Your task to perform on an android device: Open privacy settings Image 0: 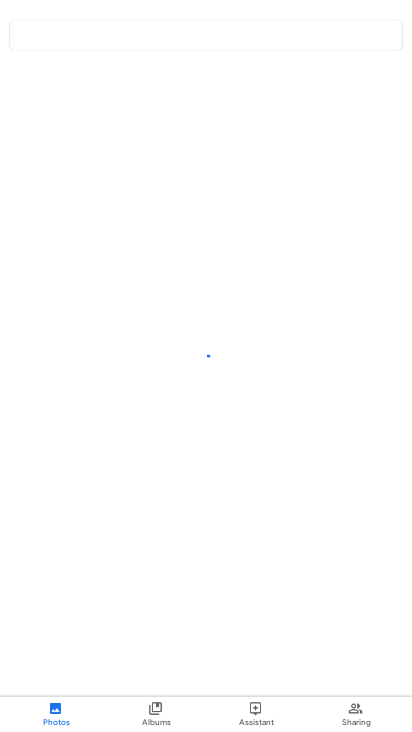
Step 0: press home button
Your task to perform on an android device: Open privacy settings Image 1: 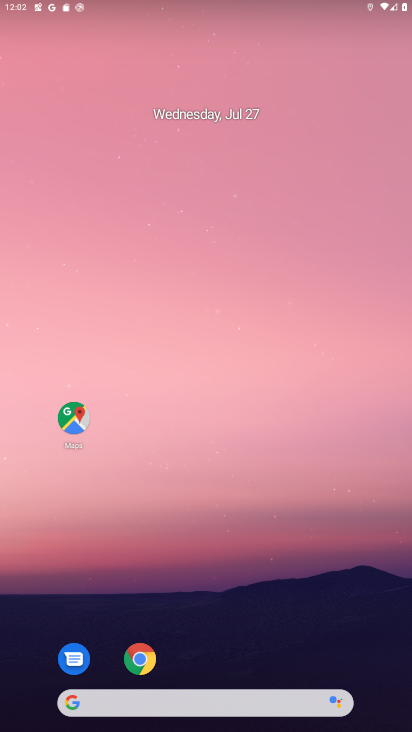
Step 1: drag from (230, 694) to (345, 0)
Your task to perform on an android device: Open privacy settings Image 2: 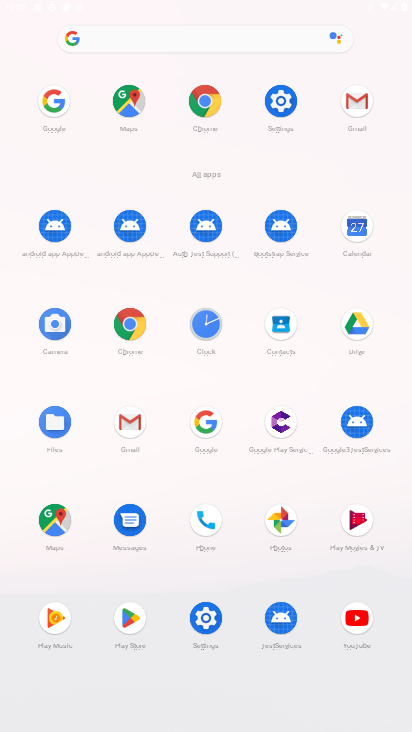
Step 2: click (284, 98)
Your task to perform on an android device: Open privacy settings Image 3: 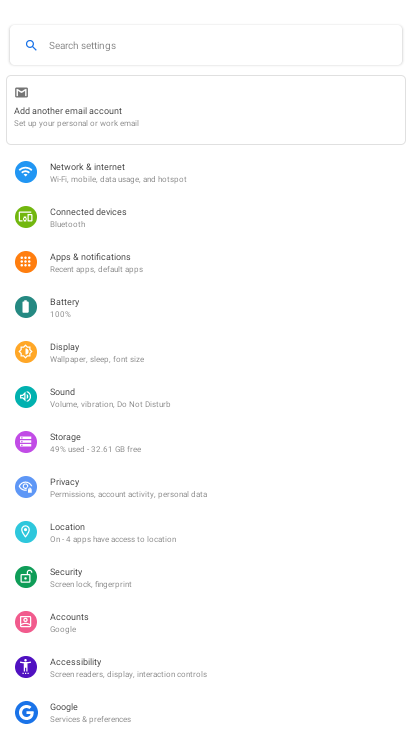
Step 3: click (72, 488)
Your task to perform on an android device: Open privacy settings Image 4: 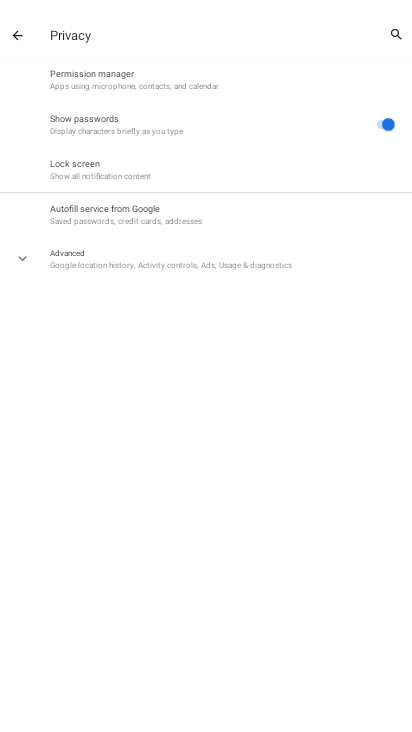
Step 4: task complete